Your task to perform on an android device: Go to notification settings Image 0: 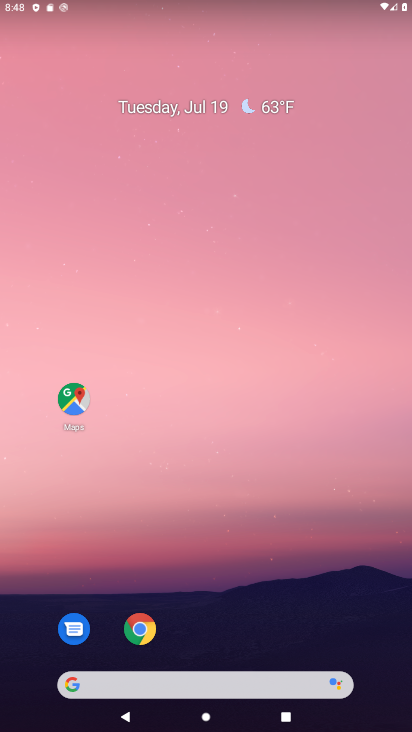
Step 0: press home button
Your task to perform on an android device: Go to notification settings Image 1: 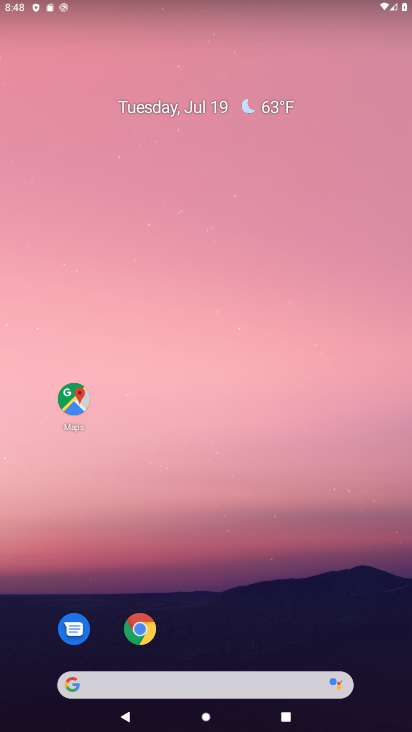
Step 1: drag from (214, 644) to (234, 32)
Your task to perform on an android device: Go to notification settings Image 2: 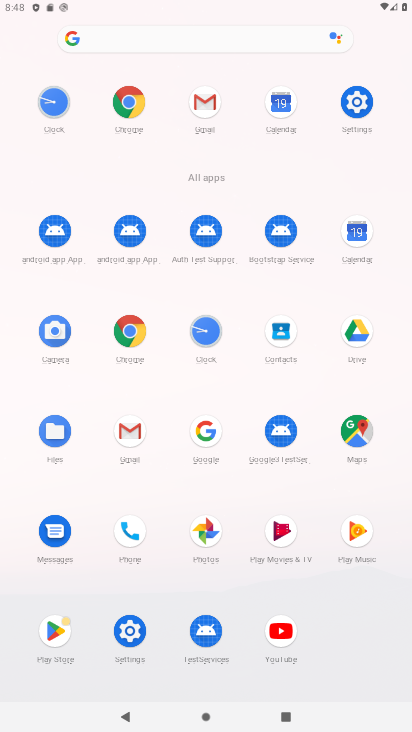
Step 2: click (357, 98)
Your task to perform on an android device: Go to notification settings Image 3: 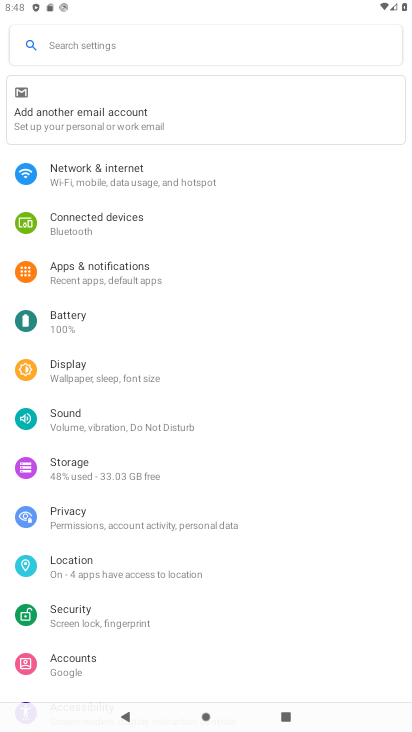
Step 3: click (151, 268)
Your task to perform on an android device: Go to notification settings Image 4: 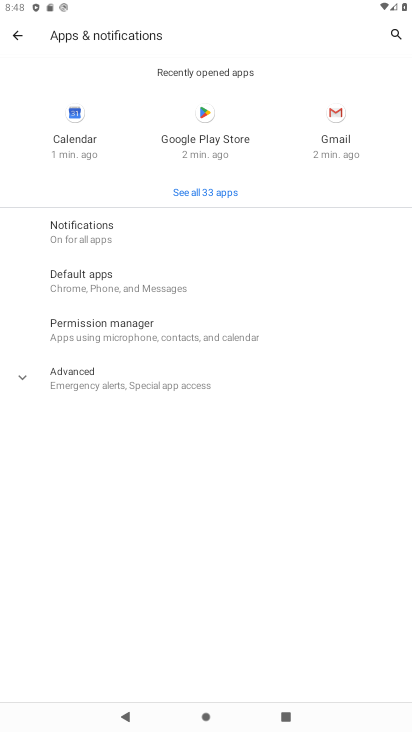
Step 4: click (120, 225)
Your task to perform on an android device: Go to notification settings Image 5: 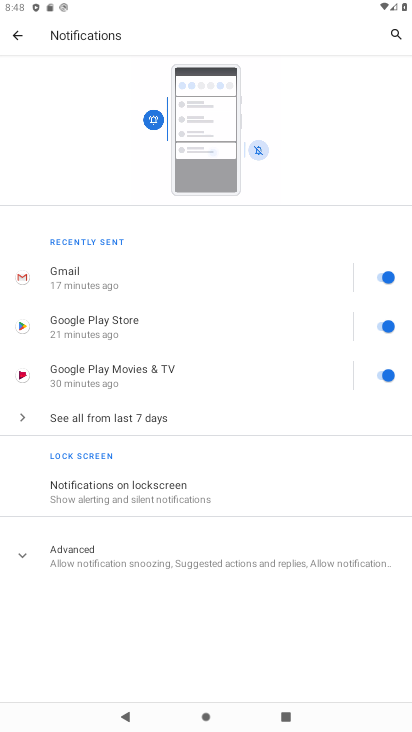
Step 5: click (15, 551)
Your task to perform on an android device: Go to notification settings Image 6: 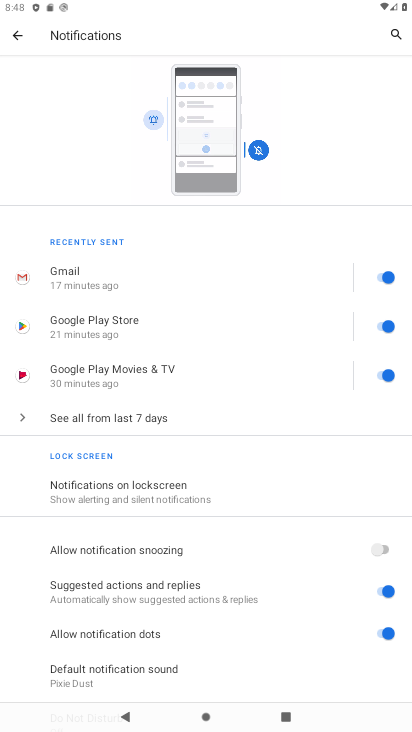
Step 6: task complete